Your task to perform on an android device: open sync settings in chrome Image 0: 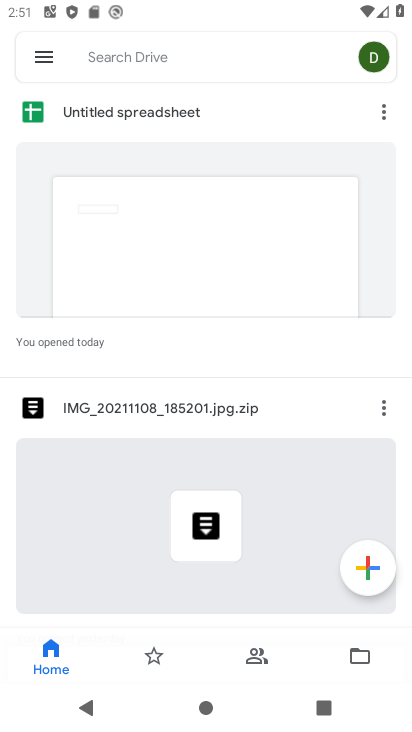
Step 0: press home button
Your task to perform on an android device: open sync settings in chrome Image 1: 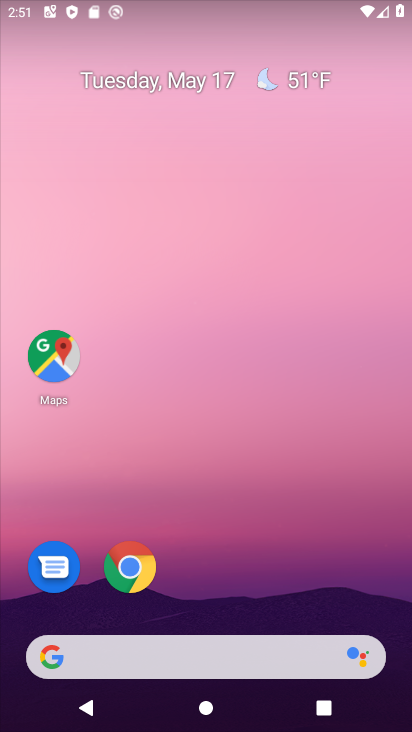
Step 1: click (141, 563)
Your task to perform on an android device: open sync settings in chrome Image 2: 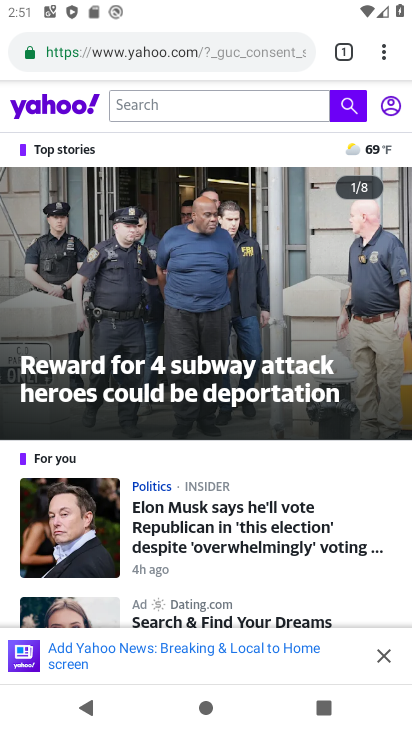
Step 2: drag from (388, 52) to (213, 602)
Your task to perform on an android device: open sync settings in chrome Image 3: 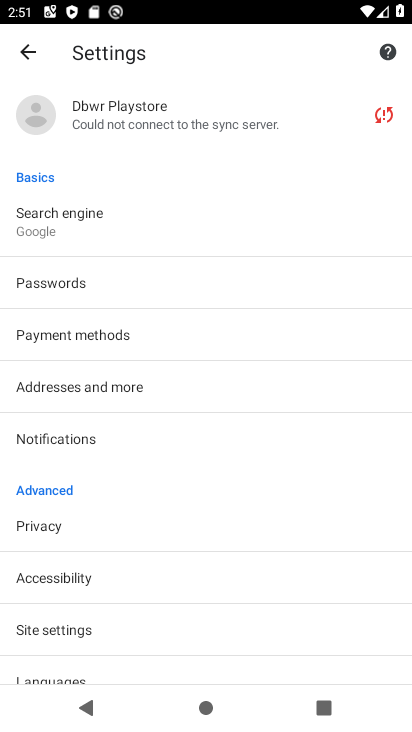
Step 3: click (145, 115)
Your task to perform on an android device: open sync settings in chrome Image 4: 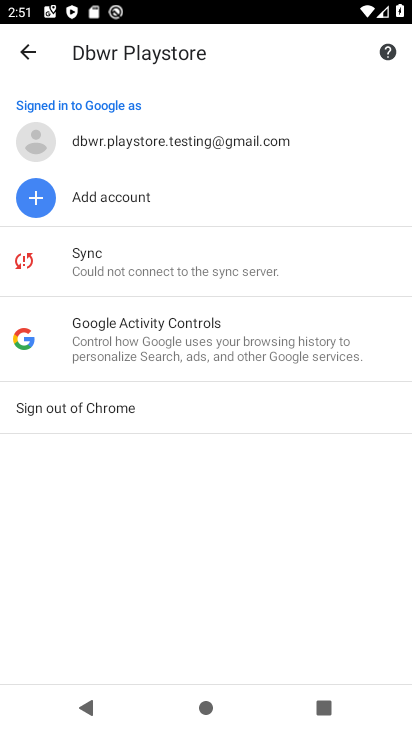
Step 4: click (131, 264)
Your task to perform on an android device: open sync settings in chrome Image 5: 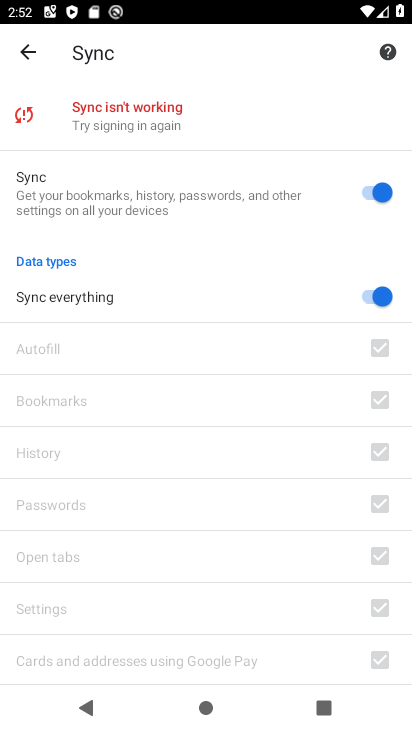
Step 5: task complete